Your task to perform on an android device: delete browsing data in the chrome app Image 0: 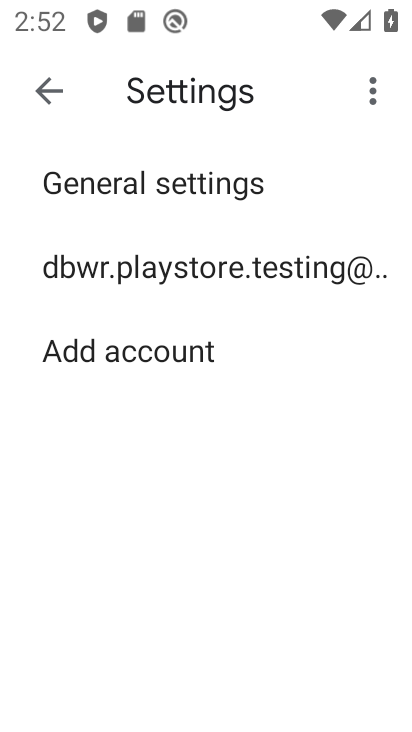
Step 0: press home button
Your task to perform on an android device: delete browsing data in the chrome app Image 1: 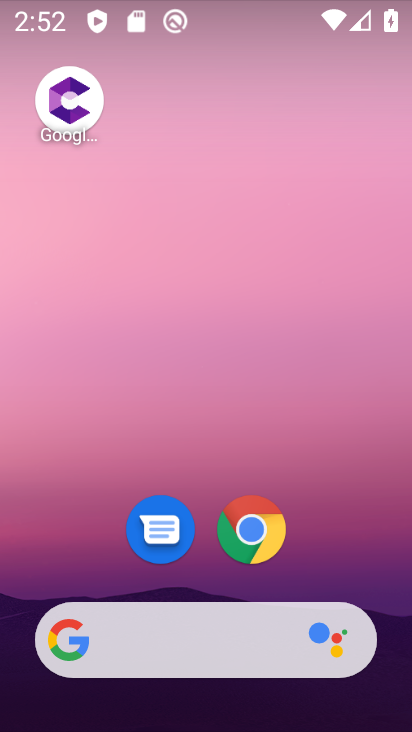
Step 1: click (253, 530)
Your task to perform on an android device: delete browsing data in the chrome app Image 2: 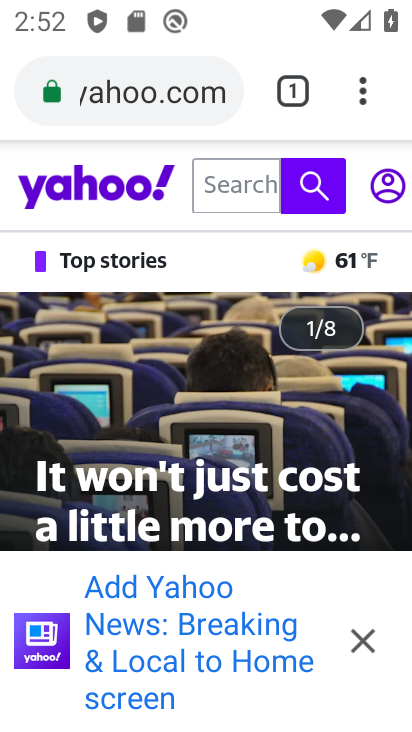
Step 2: click (364, 95)
Your task to perform on an android device: delete browsing data in the chrome app Image 3: 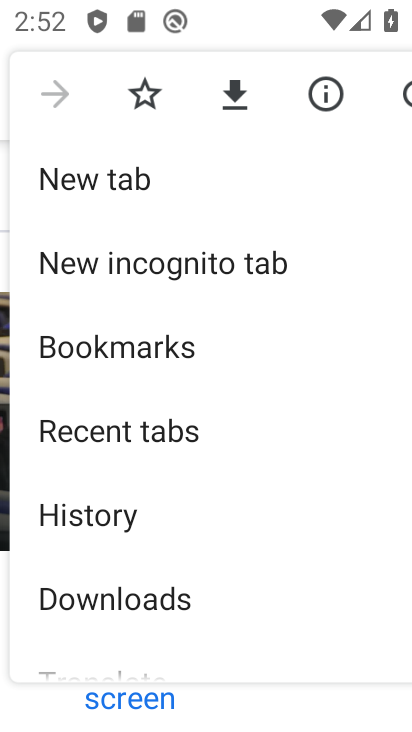
Step 3: drag from (174, 514) to (249, 324)
Your task to perform on an android device: delete browsing data in the chrome app Image 4: 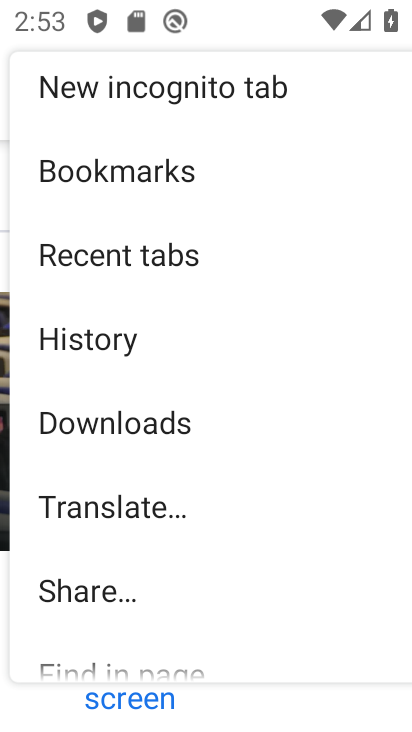
Step 4: drag from (174, 550) to (235, 361)
Your task to perform on an android device: delete browsing data in the chrome app Image 5: 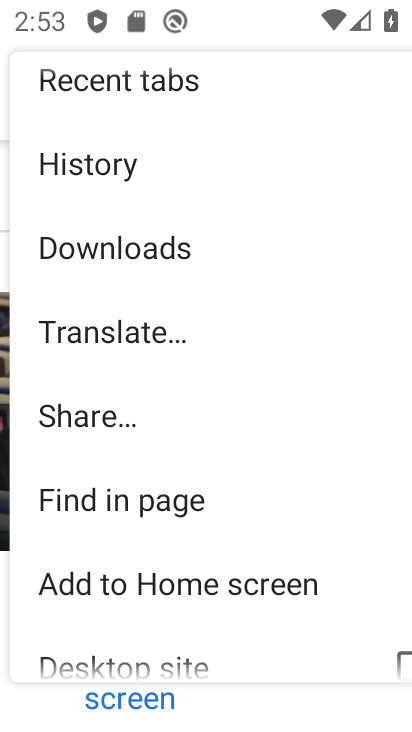
Step 5: drag from (182, 536) to (263, 387)
Your task to perform on an android device: delete browsing data in the chrome app Image 6: 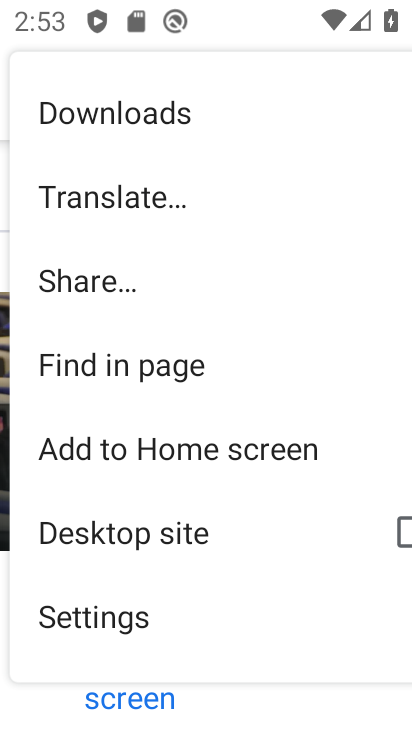
Step 6: click (114, 612)
Your task to perform on an android device: delete browsing data in the chrome app Image 7: 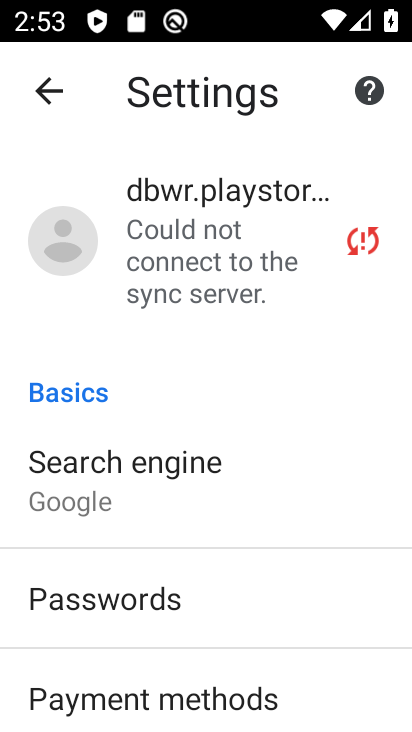
Step 7: drag from (208, 632) to (255, 410)
Your task to perform on an android device: delete browsing data in the chrome app Image 8: 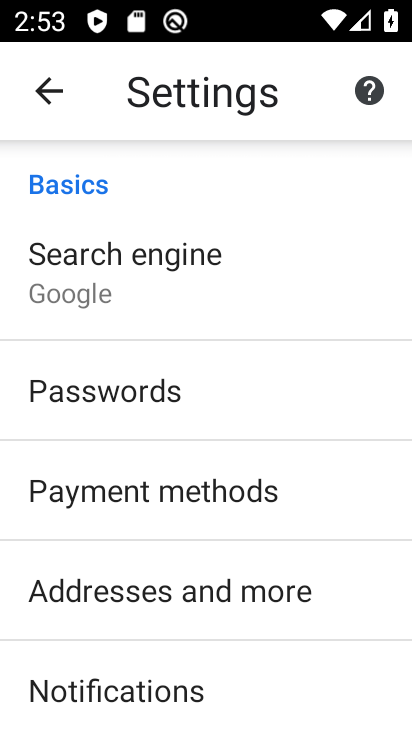
Step 8: drag from (186, 641) to (268, 405)
Your task to perform on an android device: delete browsing data in the chrome app Image 9: 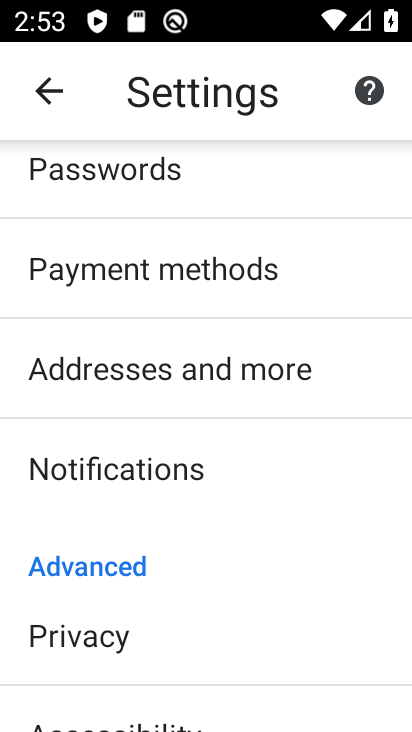
Step 9: drag from (194, 619) to (238, 499)
Your task to perform on an android device: delete browsing data in the chrome app Image 10: 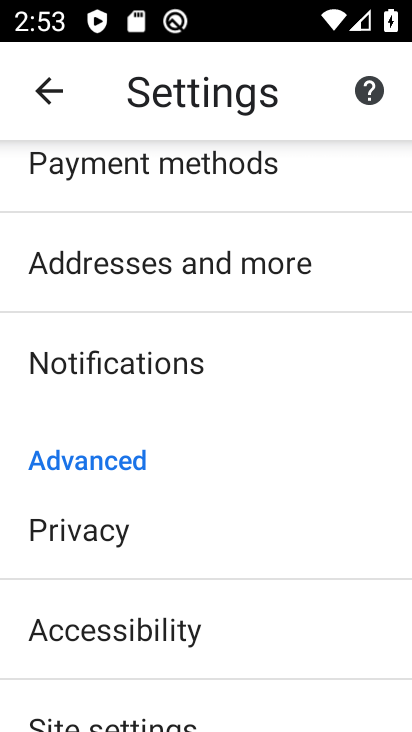
Step 10: click (113, 536)
Your task to perform on an android device: delete browsing data in the chrome app Image 11: 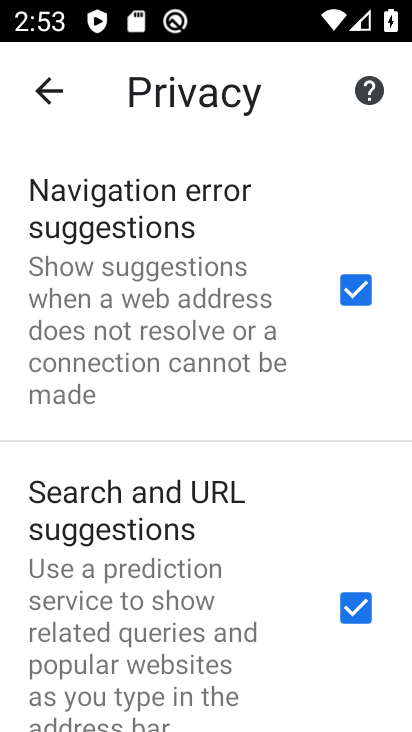
Step 11: drag from (205, 703) to (321, 305)
Your task to perform on an android device: delete browsing data in the chrome app Image 12: 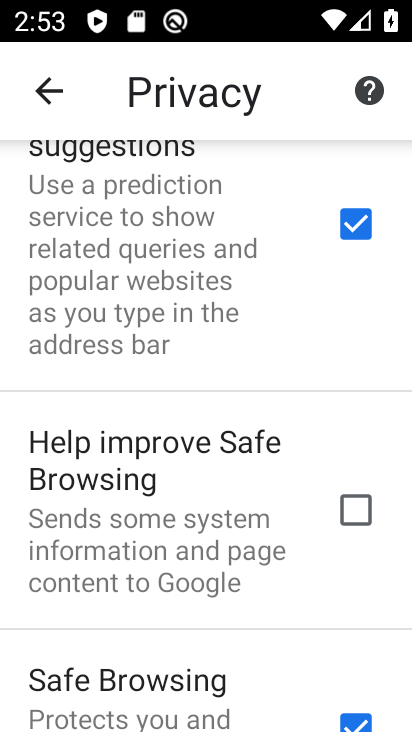
Step 12: drag from (166, 624) to (213, 252)
Your task to perform on an android device: delete browsing data in the chrome app Image 13: 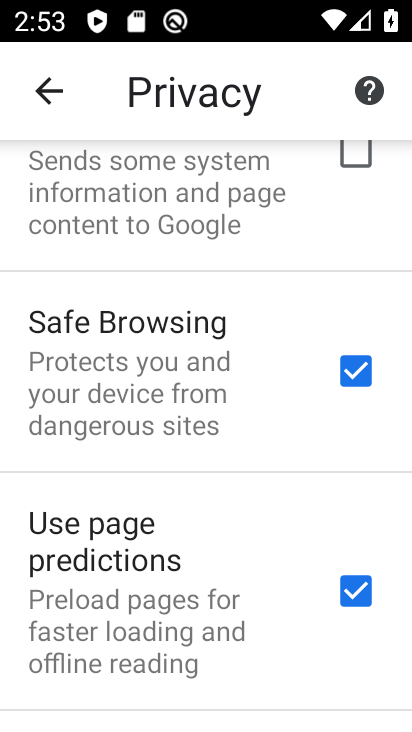
Step 13: drag from (180, 518) to (230, 259)
Your task to perform on an android device: delete browsing data in the chrome app Image 14: 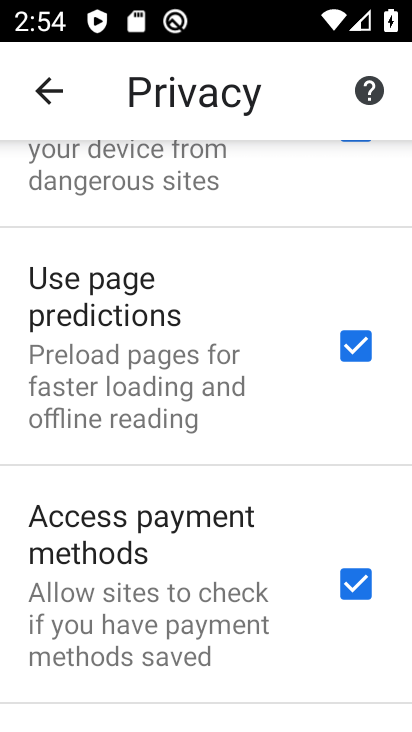
Step 14: drag from (136, 481) to (246, 261)
Your task to perform on an android device: delete browsing data in the chrome app Image 15: 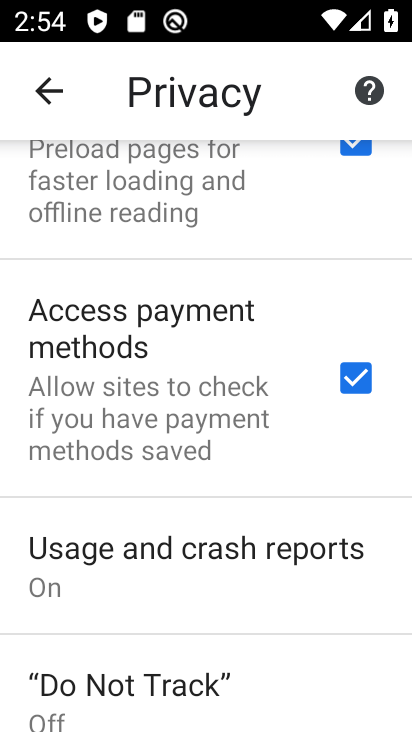
Step 15: drag from (151, 598) to (208, 363)
Your task to perform on an android device: delete browsing data in the chrome app Image 16: 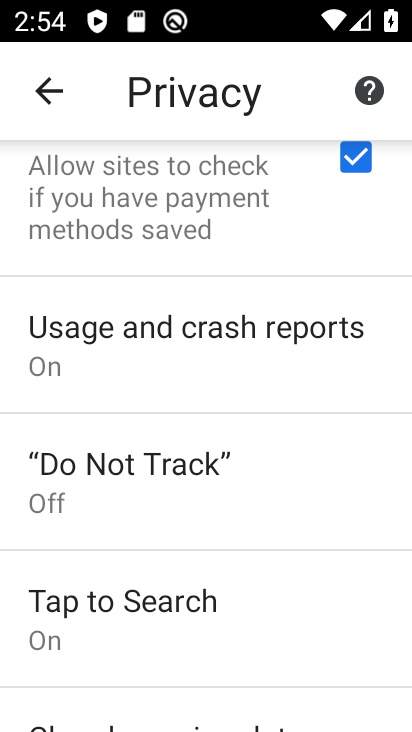
Step 16: drag from (133, 662) to (208, 380)
Your task to perform on an android device: delete browsing data in the chrome app Image 17: 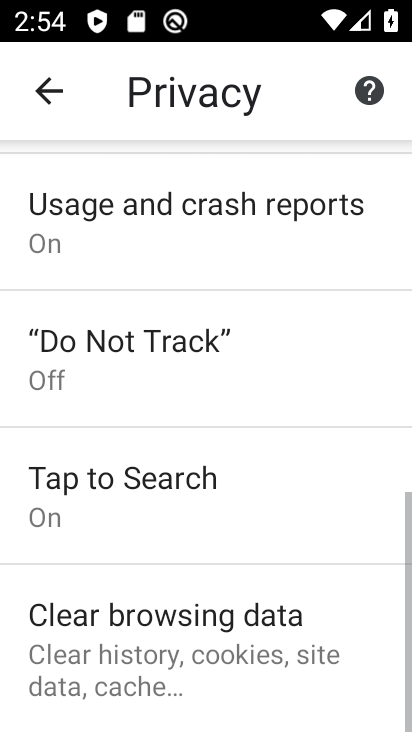
Step 17: click (199, 612)
Your task to perform on an android device: delete browsing data in the chrome app Image 18: 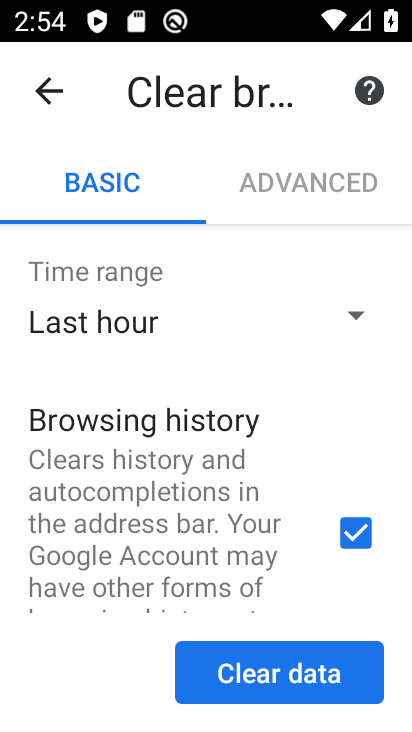
Step 18: click (292, 683)
Your task to perform on an android device: delete browsing data in the chrome app Image 19: 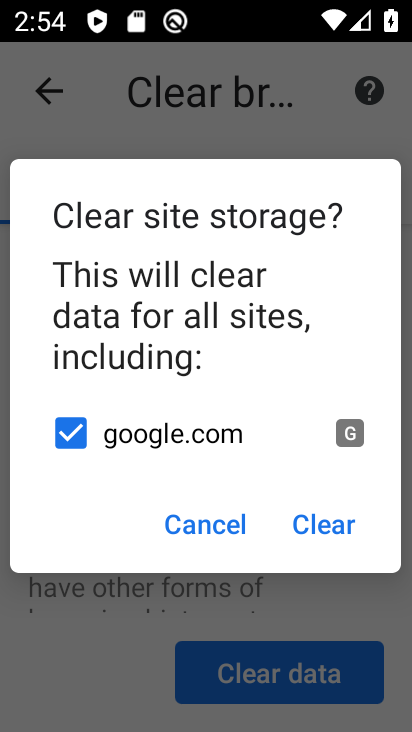
Step 19: click (332, 535)
Your task to perform on an android device: delete browsing data in the chrome app Image 20: 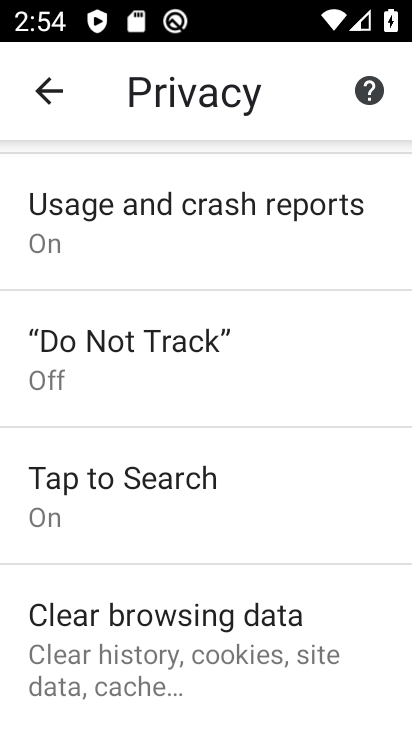
Step 20: task complete